Your task to perform on an android device: turn off picture-in-picture Image 0: 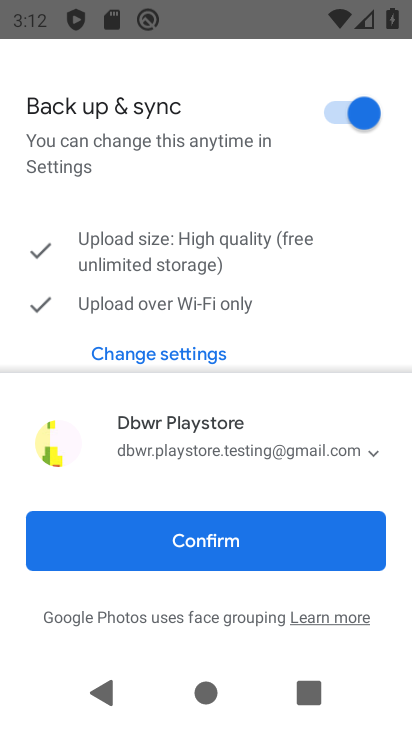
Step 0: press back button
Your task to perform on an android device: turn off picture-in-picture Image 1: 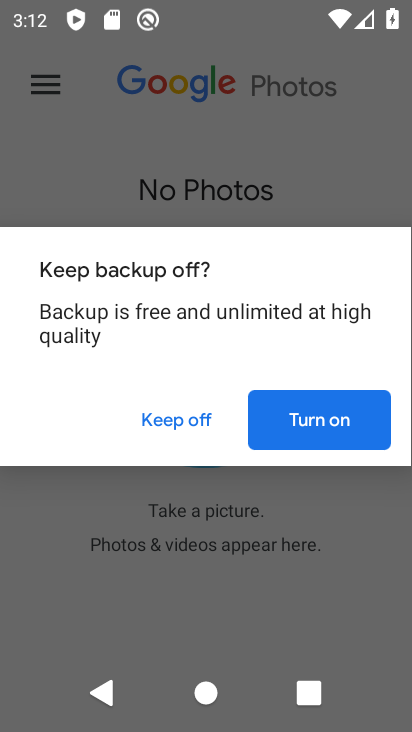
Step 1: click (192, 411)
Your task to perform on an android device: turn off picture-in-picture Image 2: 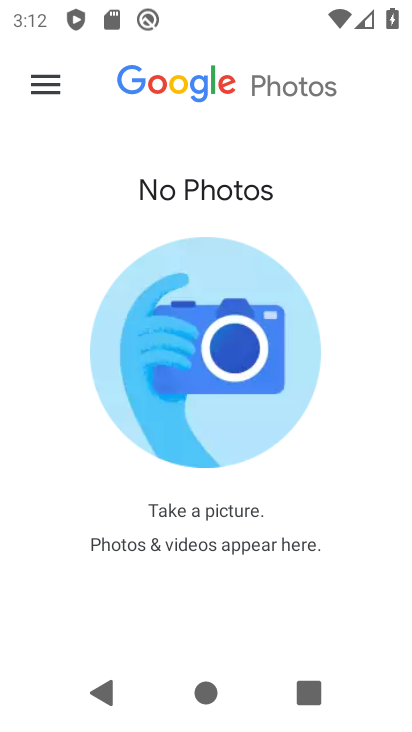
Step 2: press back button
Your task to perform on an android device: turn off picture-in-picture Image 3: 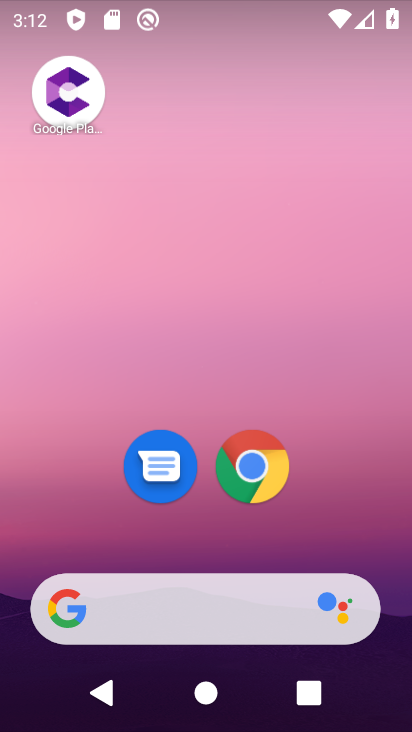
Step 3: drag from (342, 502) to (231, 70)
Your task to perform on an android device: turn off picture-in-picture Image 4: 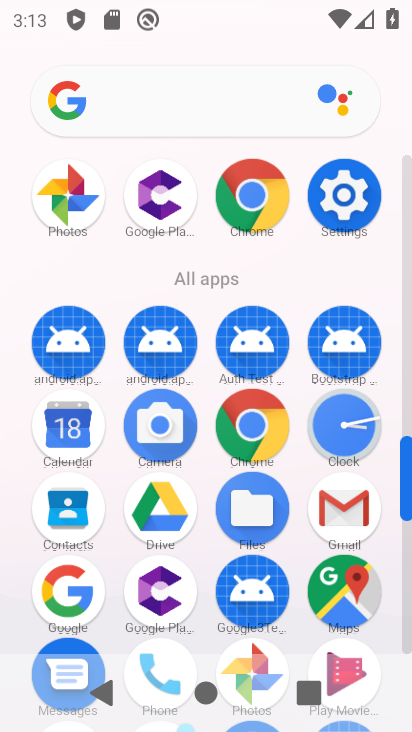
Step 4: click (352, 216)
Your task to perform on an android device: turn off picture-in-picture Image 5: 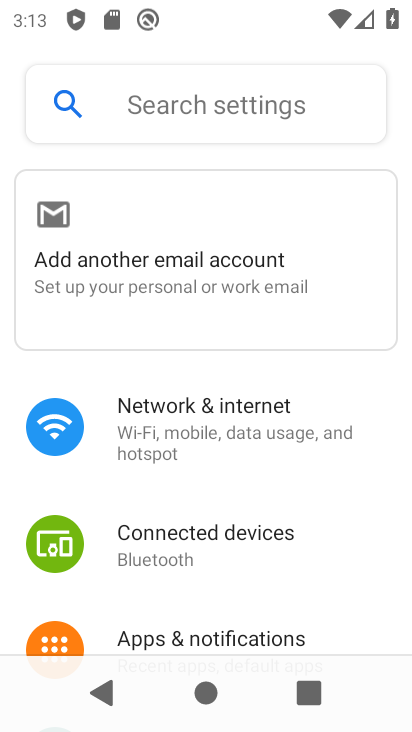
Step 5: drag from (241, 583) to (292, 166)
Your task to perform on an android device: turn off picture-in-picture Image 6: 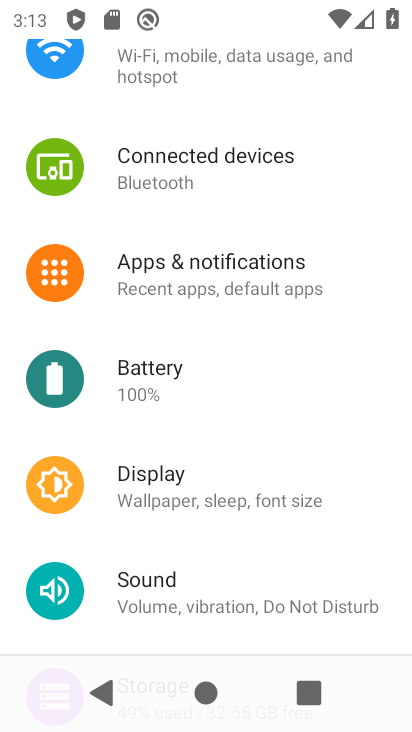
Step 6: drag from (219, 548) to (265, 222)
Your task to perform on an android device: turn off picture-in-picture Image 7: 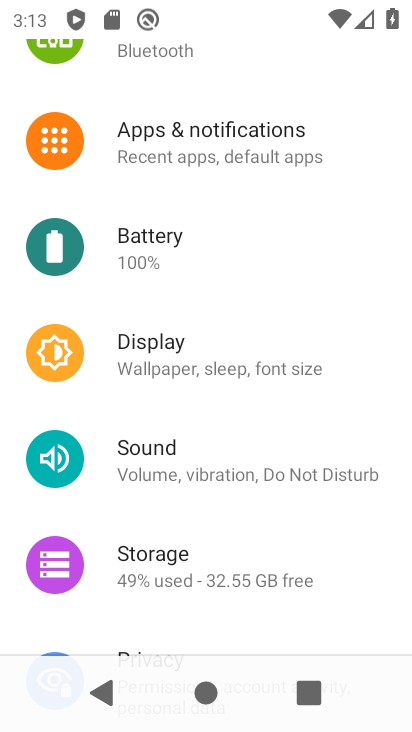
Step 7: drag from (229, 520) to (258, 262)
Your task to perform on an android device: turn off picture-in-picture Image 8: 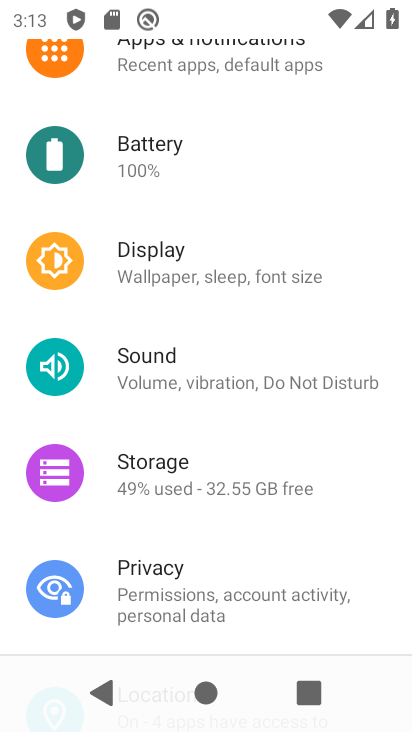
Step 8: click (279, 77)
Your task to perform on an android device: turn off picture-in-picture Image 9: 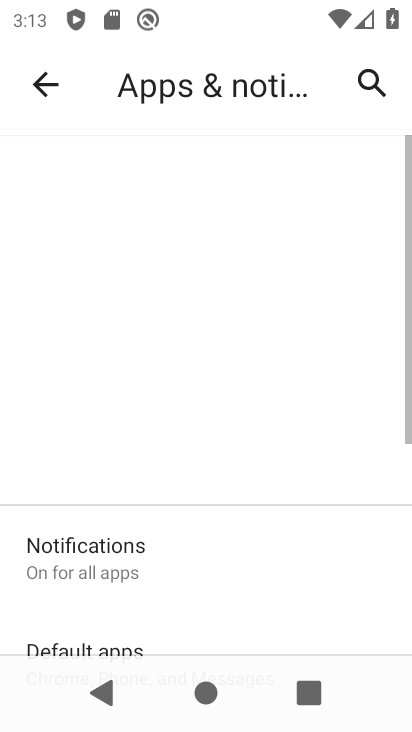
Step 9: drag from (235, 586) to (305, 233)
Your task to perform on an android device: turn off picture-in-picture Image 10: 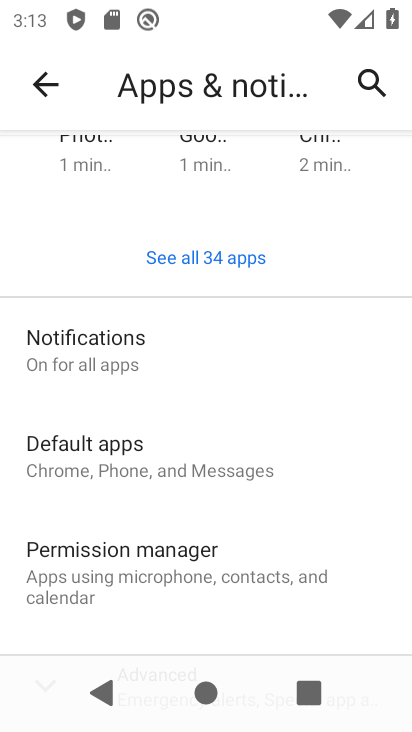
Step 10: drag from (293, 588) to (309, 322)
Your task to perform on an android device: turn off picture-in-picture Image 11: 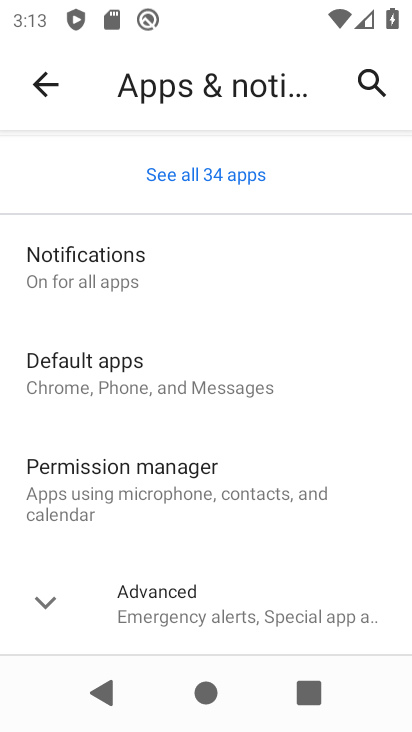
Step 11: click (280, 589)
Your task to perform on an android device: turn off picture-in-picture Image 12: 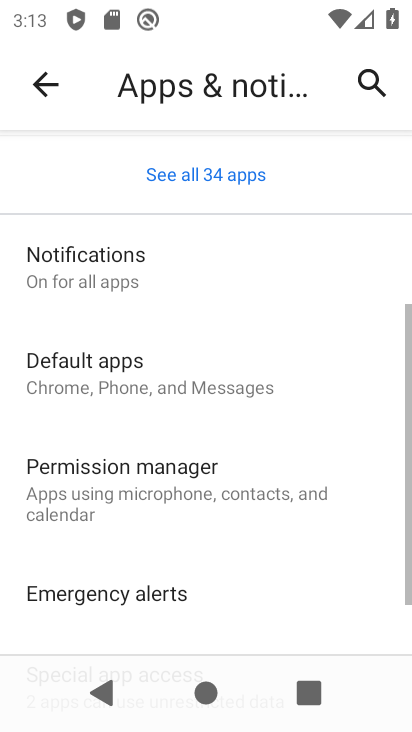
Step 12: drag from (296, 519) to (306, 187)
Your task to perform on an android device: turn off picture-in-picture Image 13: 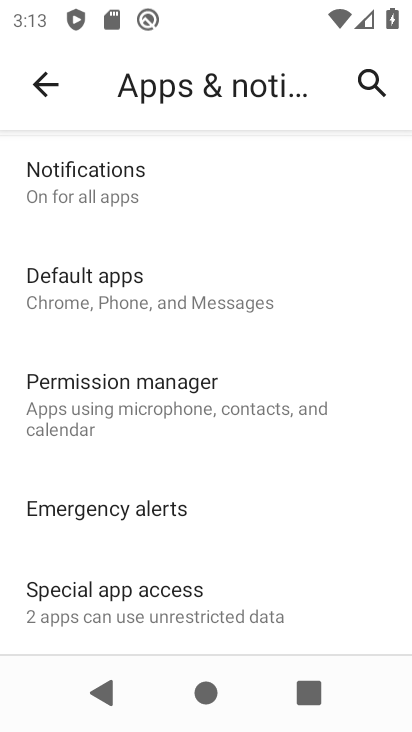
Step 13: click (221, 601)
Your task to perform on an android device: turn off picture-in-picture Image 14: 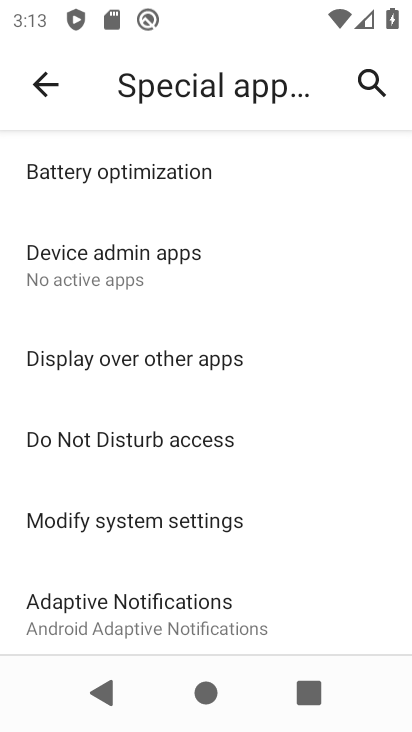
Step 14: drag from (280, 558) to (239, 37)
Your task to perform on an android device: turn off picture-in-picture Image 15: 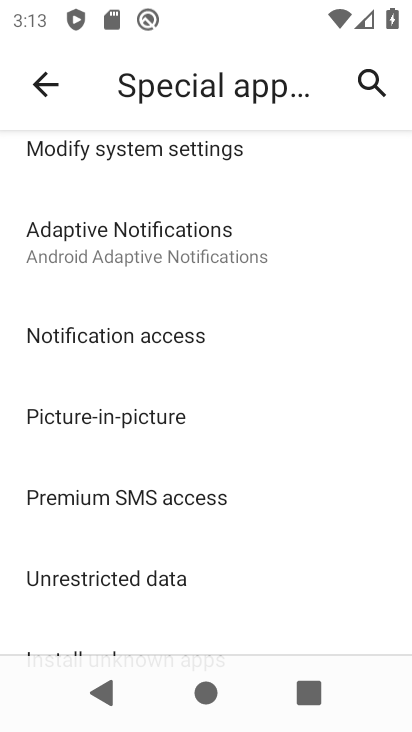
Step 15: click (219, 417)
Your task to perform on an android device: turn off picture-in-picture Image 16: 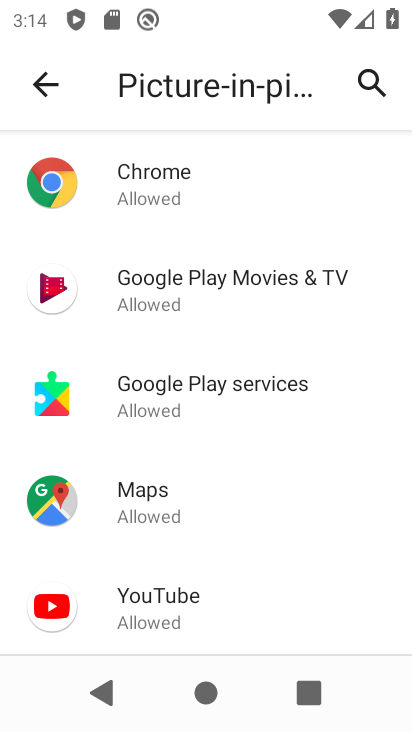
Step 16: click (275, 178)
Your task to perform on an android device: turn off picture-in-picture Image 17: 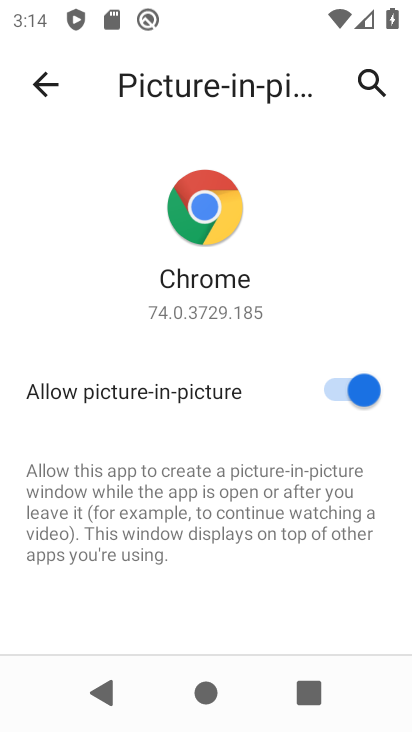
Step 17: click (334, 400)
Your task to perform on an android device: turn off picture-in-picture Image 18: 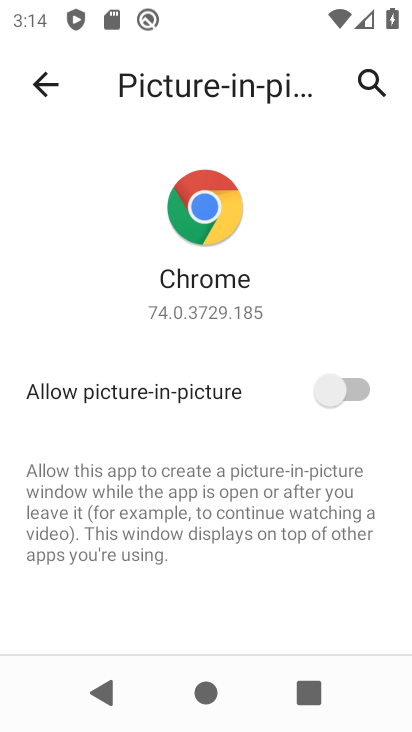
Step 18: task complete